Your task to perform on an android device: open wifi settings Image 0: 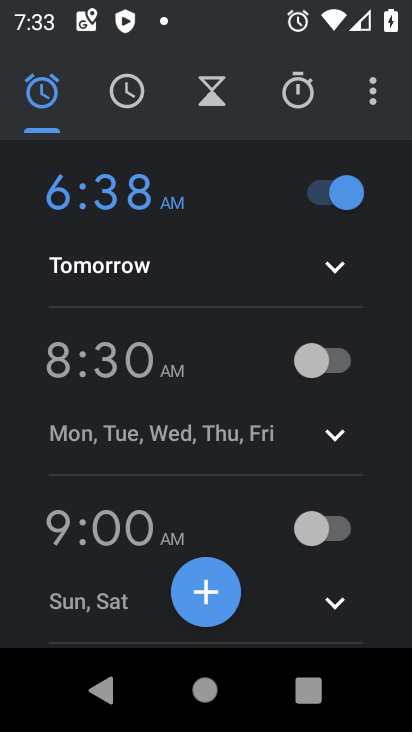
Step 0: press home button
Your task to perform on an android device: open wifi settings Image 1: 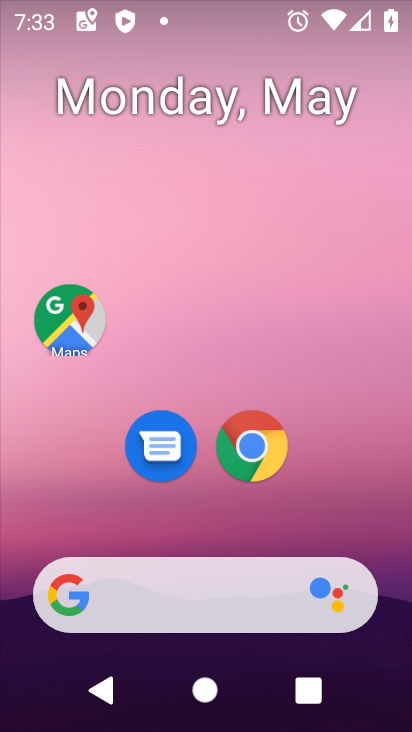
Step 1: drag from (348, 512) to (165, 11)
Your task to perform on an android device: open wifi settings Image 2: 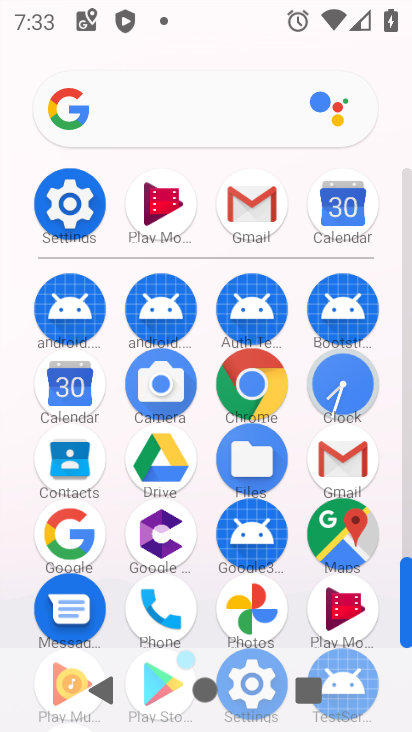
Step 2: click (67, 208)
Your task to perform on an android device: open wifi settings Image 3: 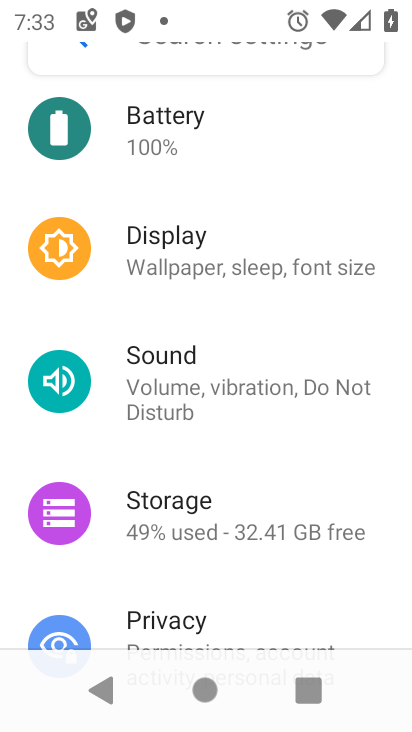
Step 3: drag from (198, 192) to (336, 722)
Your task to perform on an android device: open wifi settings Image 4: 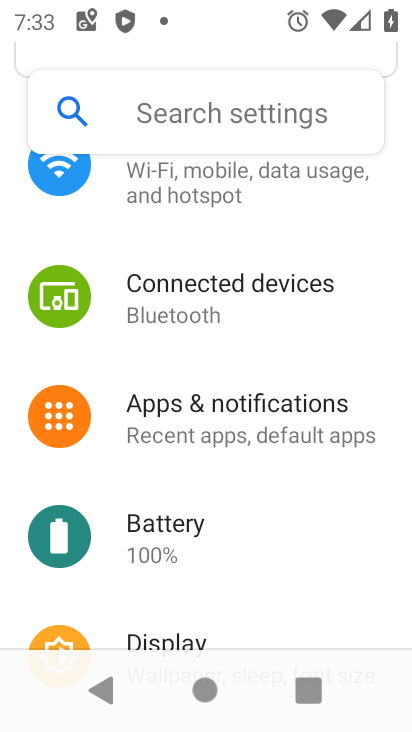
Step 4: click (185, 187)
Your task to perform on an android device: open wifi settings Image 5: 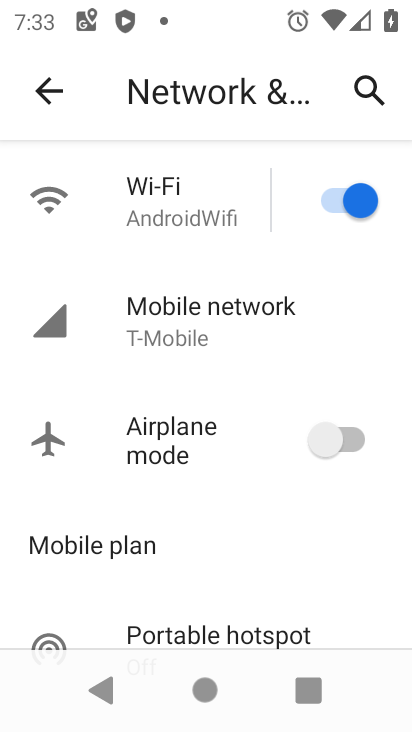
Step 5: click (172, 181)
Your task to perform on an android device: open wifi settings Image 6: 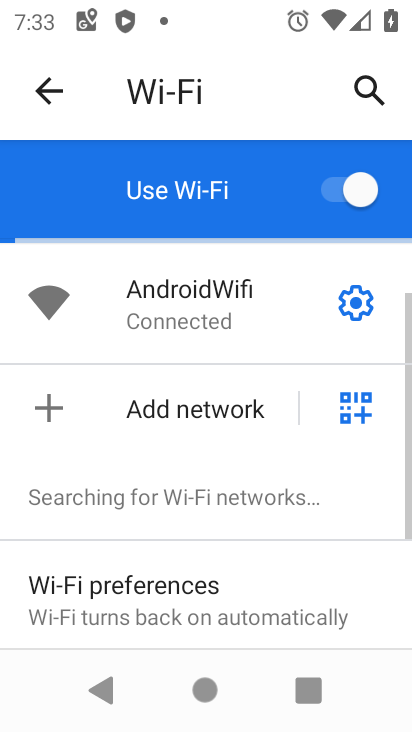
Step 6: task complete